Your task to perform on an android device: toggle javascript in the chrome app Image 0: 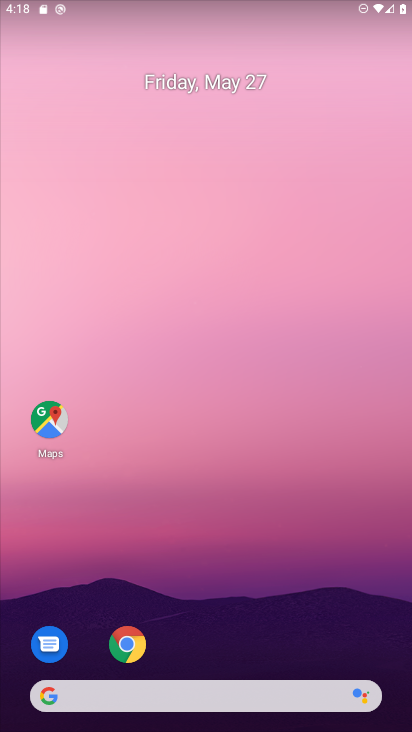
Step 0: click (135, 643)
Your task to perform on an android device: toggle javascript in the chrome app Image 1: 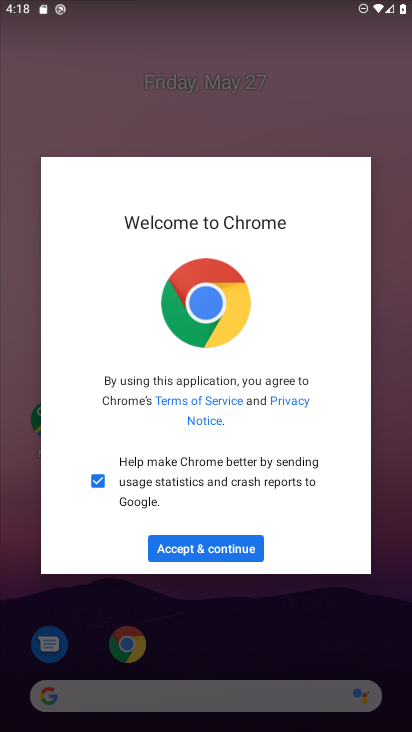
Step 1: click (202, 555)
Your task to perform on an android device: toggle javascript in the chrome app Image 2: 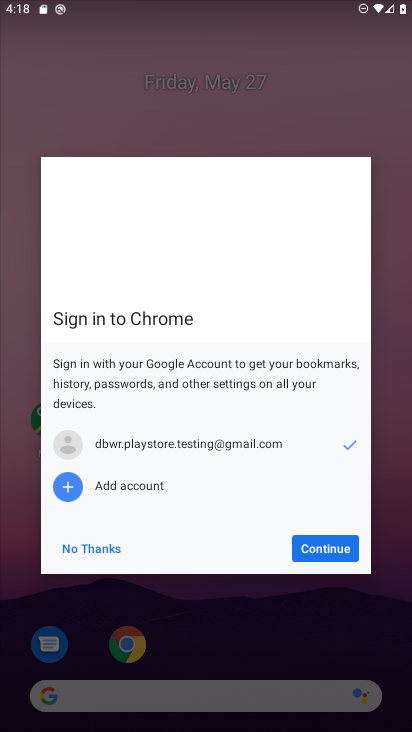
Step 2: click (329, 544)
Your task to perform on an android device: toggle javascript in the chrome app Image 3: 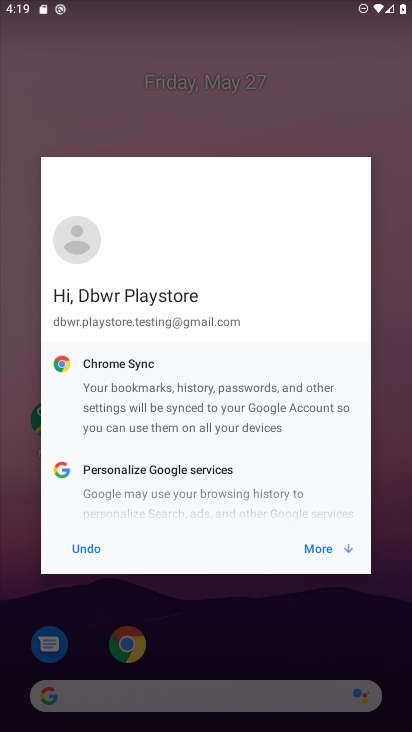
Step 3: click (329, 544)
Your task to perform on an android device: toggle javascript in the chrome app Image 4: 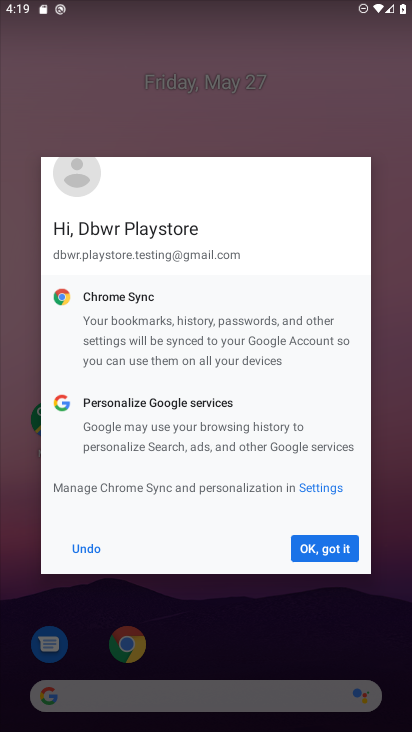
Step 4: click (329, 544)
Your task to perform on an android device: toggle javascript in the chrome app Image 5: 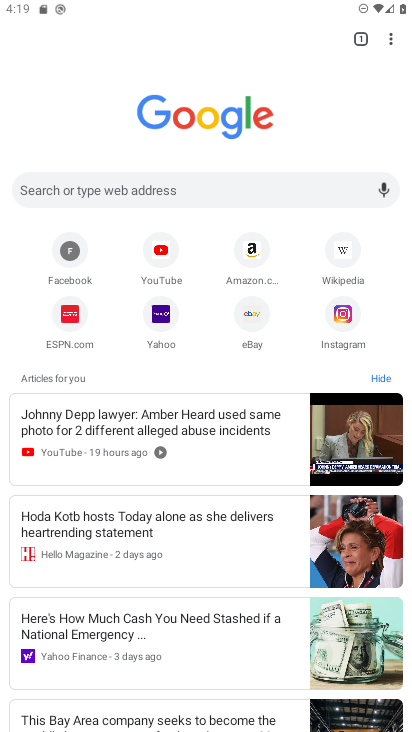
Step 5: click (391, 38)
Your task to perform on an android device: toggle javascript in the chrome app Image 6: 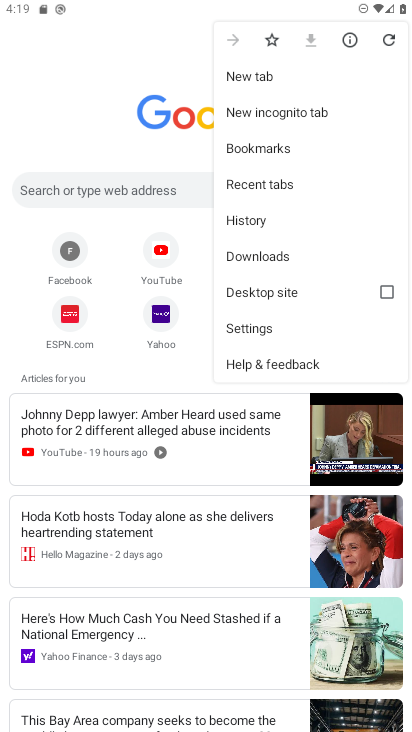
Step 6: click (242, 327)
Your task to perform on an android device: toggle javascript in the chrome app Image 7: 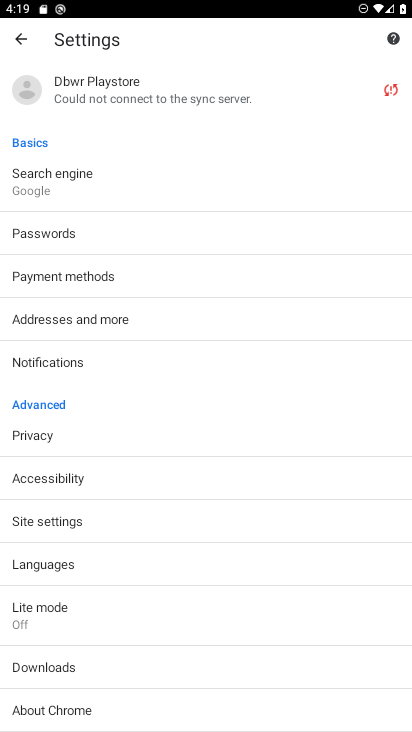
Step 7: click (78, 517)
Your task to perform on an android device: toggle javascript in the chrome app Image 8: 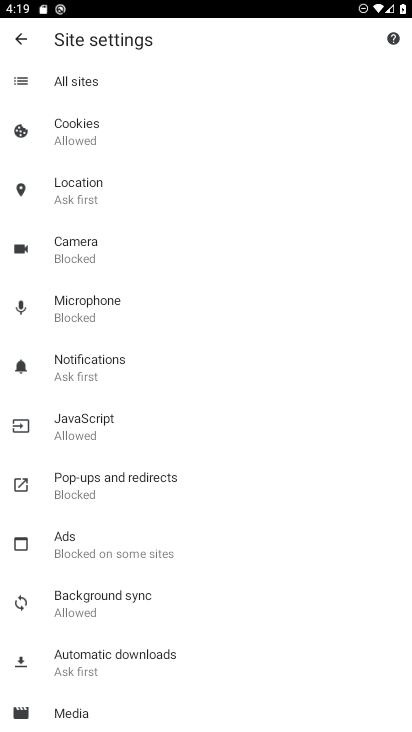
Step 8: click (74, 418)
Your task to perform on an android device: toggle javascript in the chrome app Image 9: 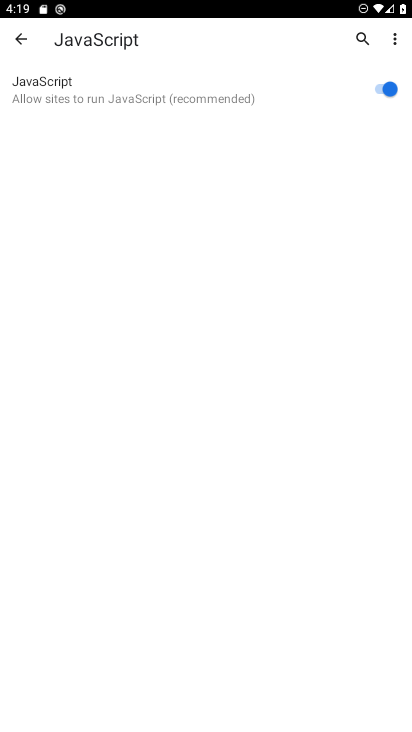
Step 9: click (387, 96)
Your task to perform on an android device: toggle javascript in the chrome app Image 10: 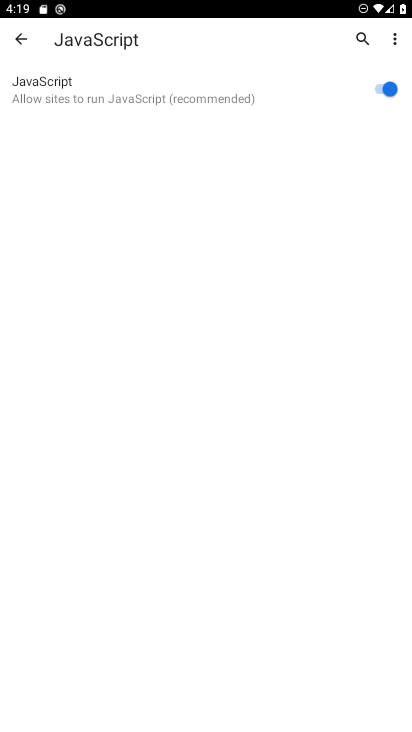
Step 10: click (387, 96)
Your task to perform on an android device: toggle javascript in the chrome app Image 11: 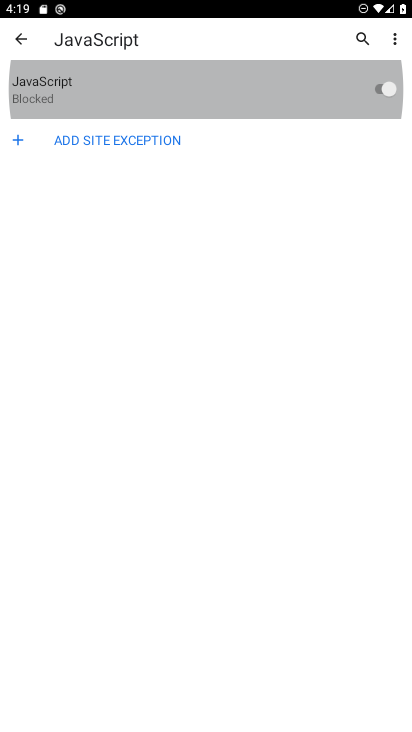
Step 11: click (387, 96)
Your task to perform on an android device: toggle javascript in the chrome app Image 12: 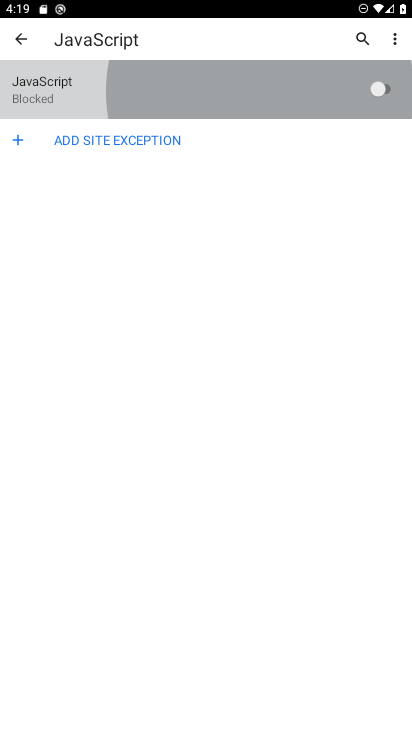
Step 12: click (387, 96)
Your task to perform on an android device: toggle javascript in the chrome app Image 13: 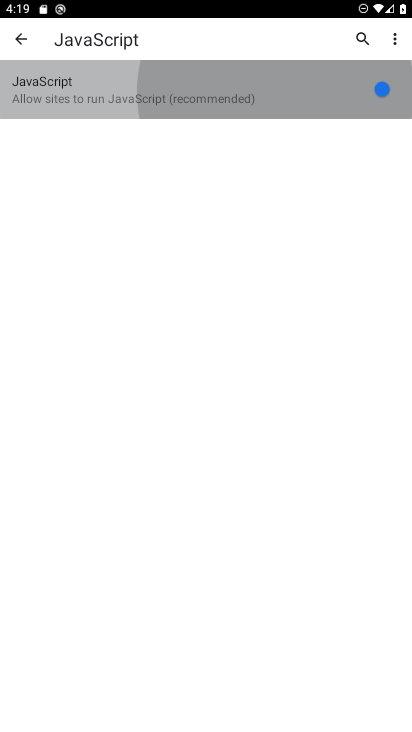
Step 13: click (387, 96)
Your task to perform on an android device: toggle javascript in the chrome app Image 14: 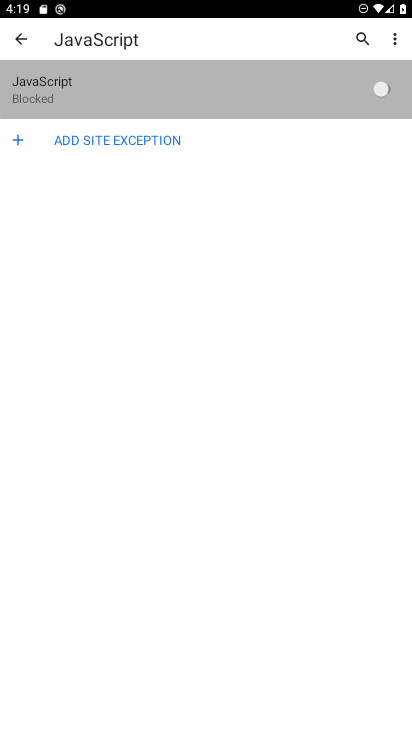
Step 14: click (387, 96)
Your task to perform on an android device: toggle javascript in the chrome app Image 15: 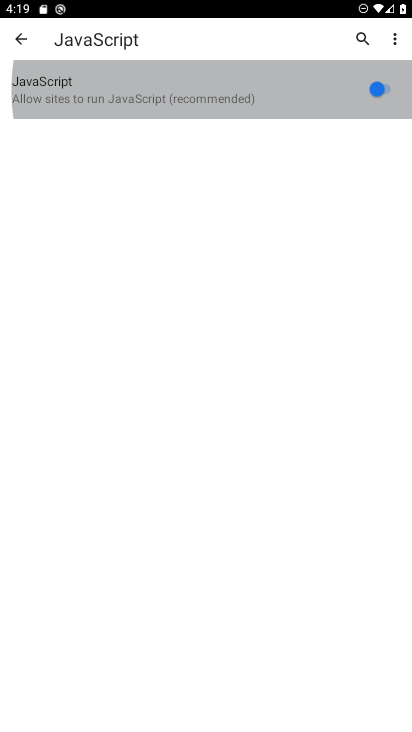
Step 15: click (387, 96)
Your task to perform on an android device: toggle javascript in the chrome app Image 16: 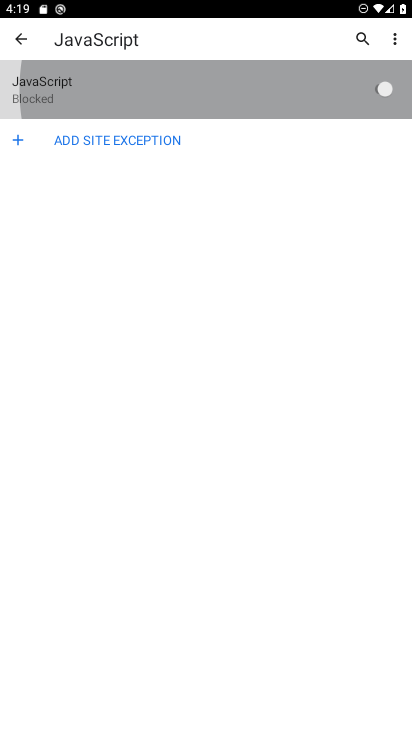
Step 16: click (387, 96)
Your task to perform on an android device: toggle javascript in the chrome app Image 17: 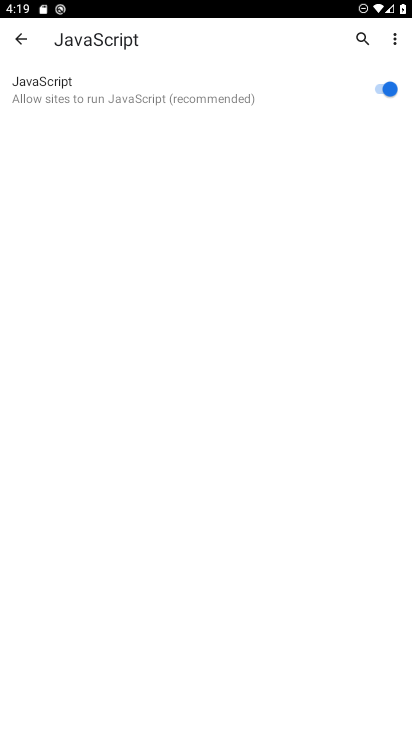
Step 17: task complete